Your task to perform on an android device: See recent photos Image 0: 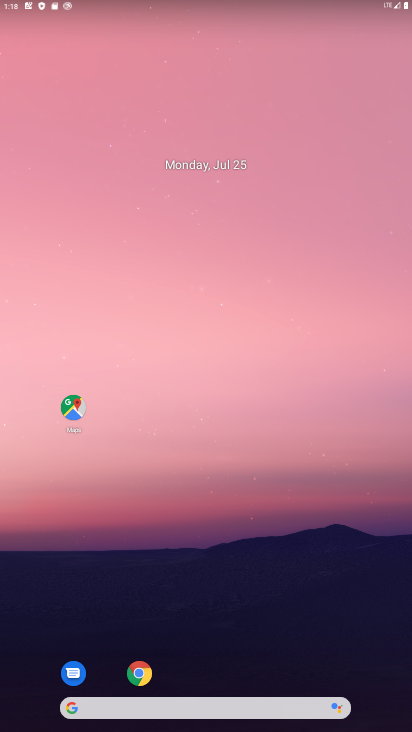
Step 0: drag from (324, 620) to (304, 144)
Your task to perform on an android device: See recent photos Image 1: 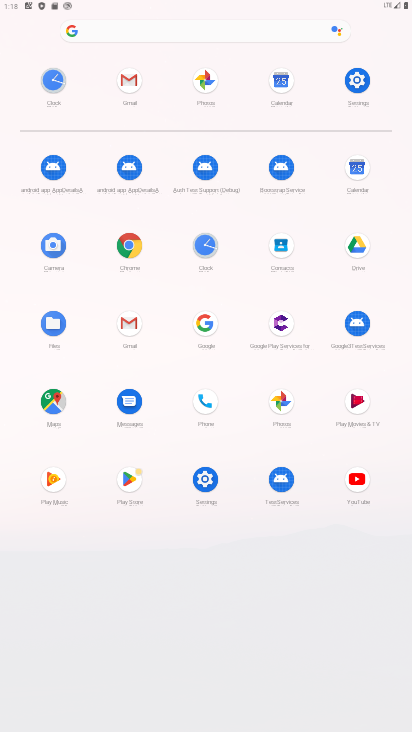
Step 1: click (282, 402)
Your task to perform on an android device: See recent photos Image 2: 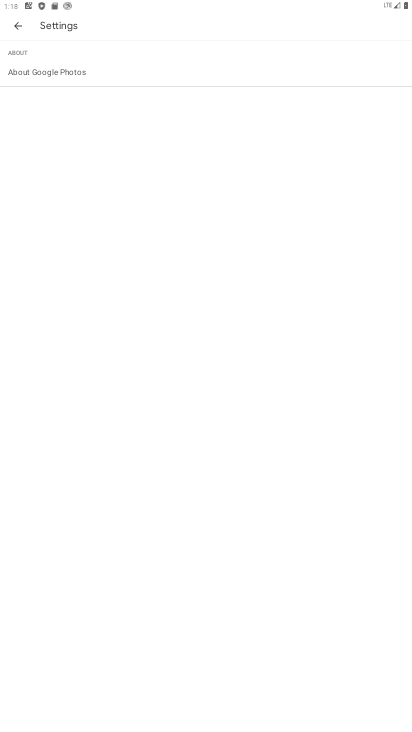
Step 2: task complete